Your task to perform on an android device: set an alarm Image 0: 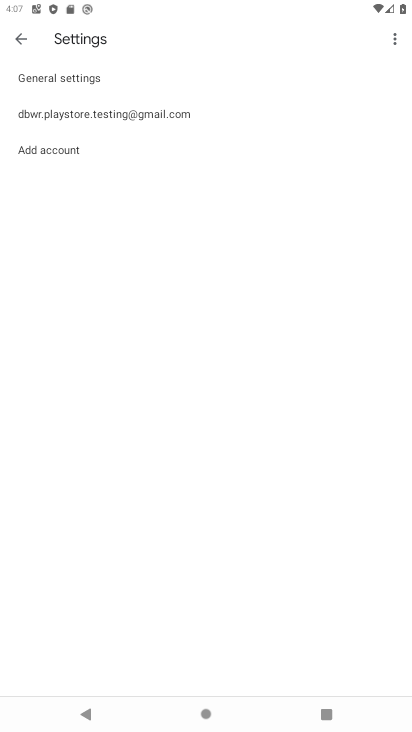
Step 0: press home button
Your task to perform on an android device: set an alarm Image 1: 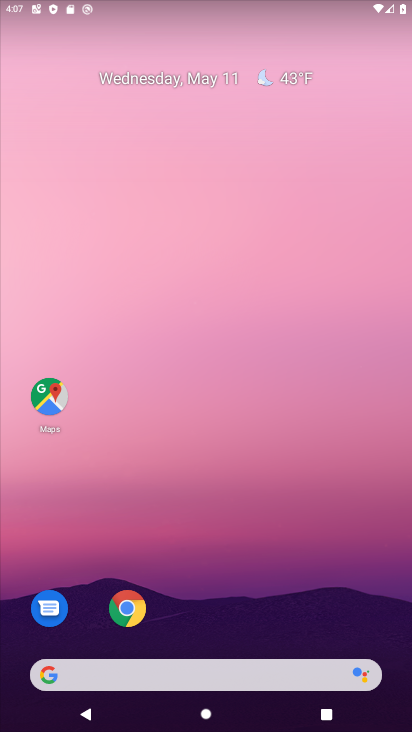
Step 1: drag from (230, 690) to (230, 231)
Your task to perform on an android device: set an alarm Image 2: 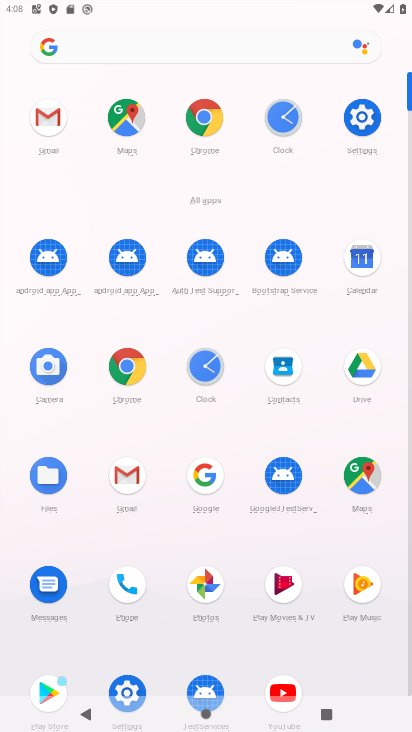
Step 2: click (203, 369)
Your task to perform on an android device: set an alarm Image 3: 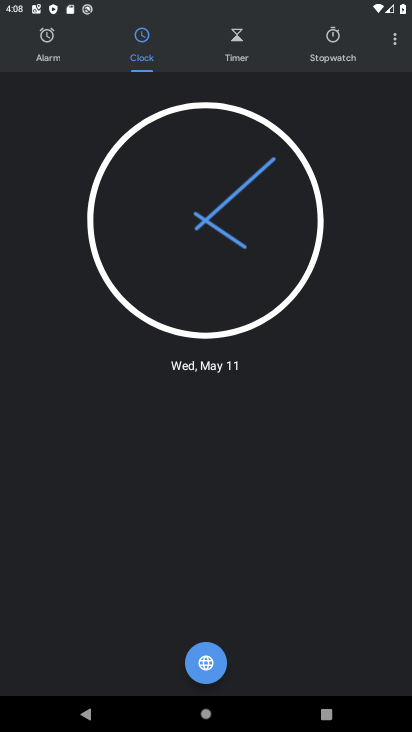
Step 3: click (49, 45)
Your task to perform on an android device: set an alarm Image 4: 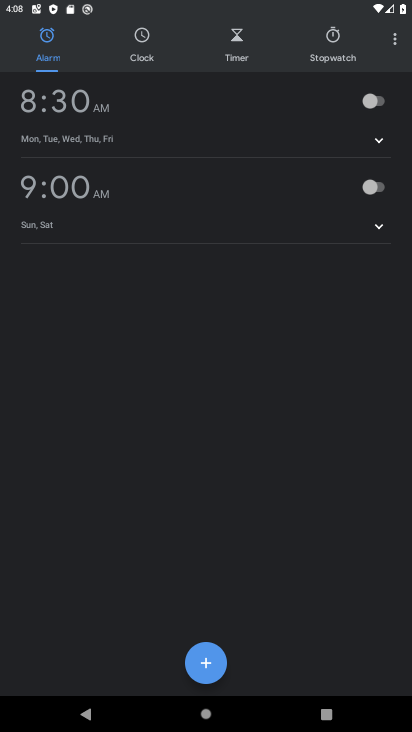
Step 4: click (206, 661)
Your task to perform on an android device: set an alarm Image 5: 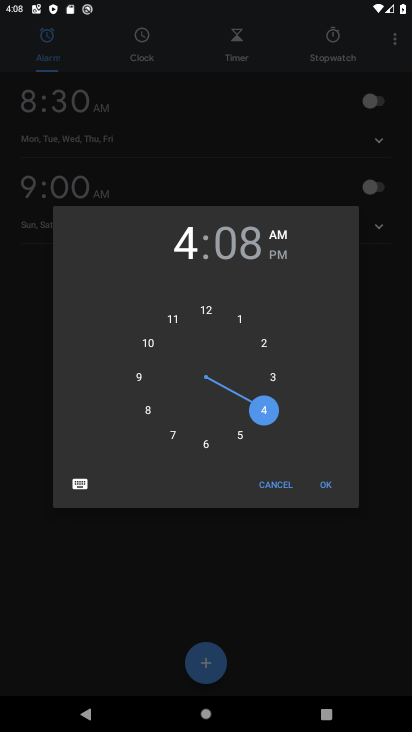
Step 5: click (204, 440)
Your task to perform on an android device: set an alarm Image 6: 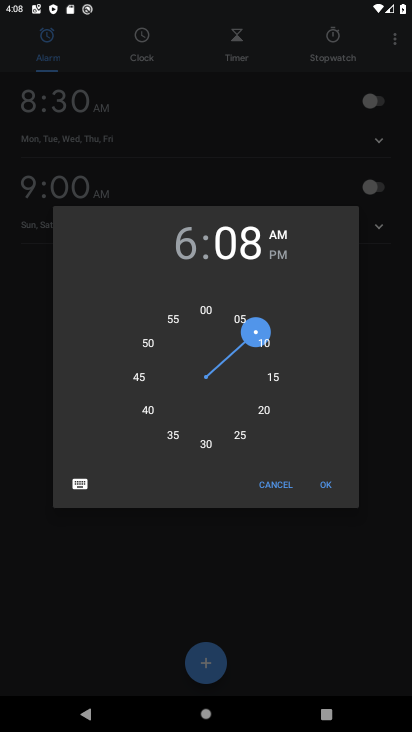
Step 6: click (326, 483)
Your task to perform on an android device: set an alarm Image 7: 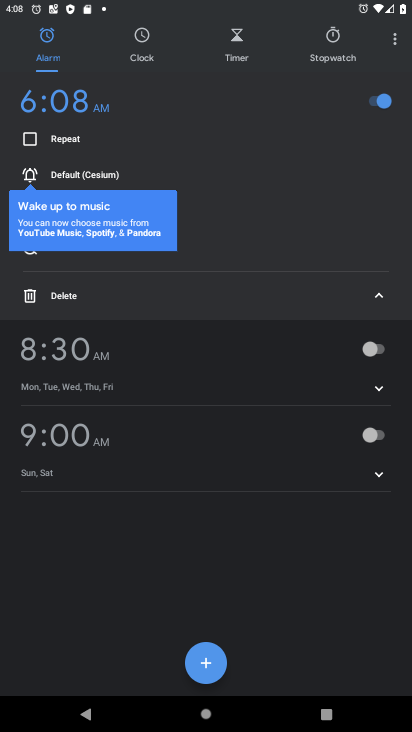
Step 7: task complete